Your task to perform on an android device: See recent photos Image 0: 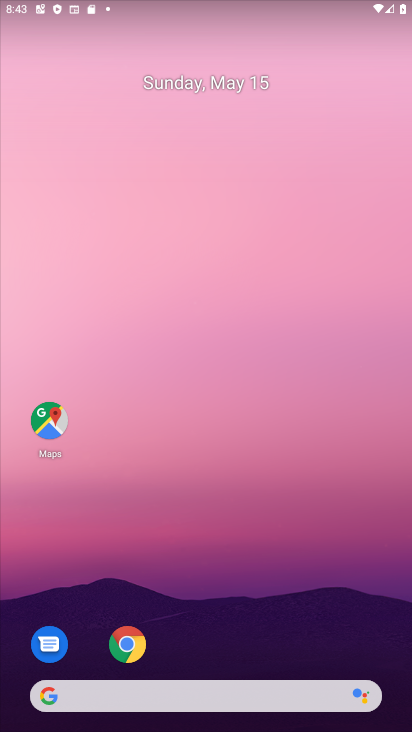
Step 0: drag from (182, 668) to (96, 15)
Your task to perform on an android device: See recent photos Image 1: 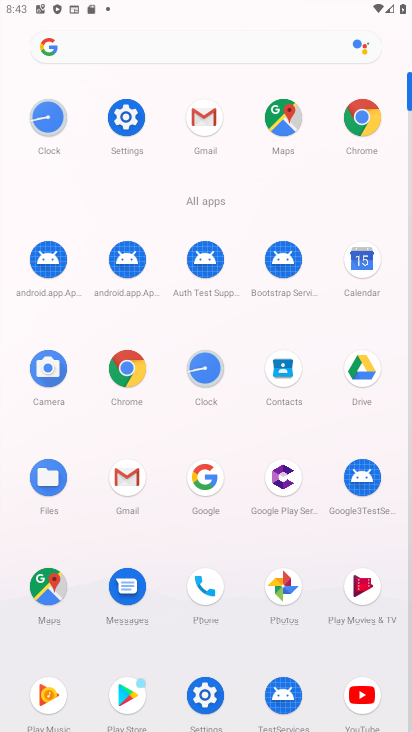
Step 1: click (290, 589)
Your task to perform on an android device: See recent photos Image 2: 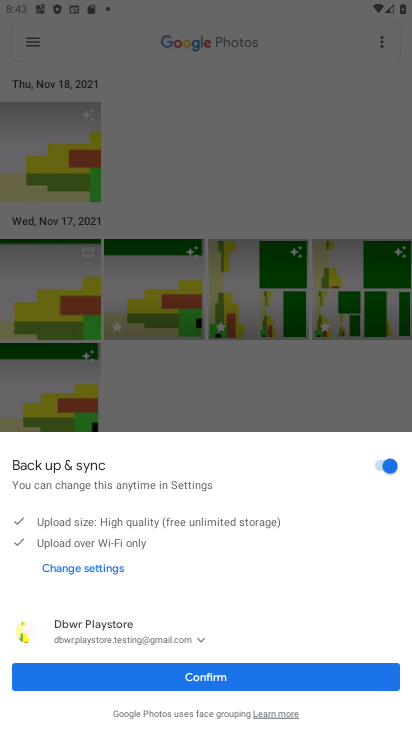
Step 2: click (205, 673)
Your task to perform on an android device: See recent photos Image 3: 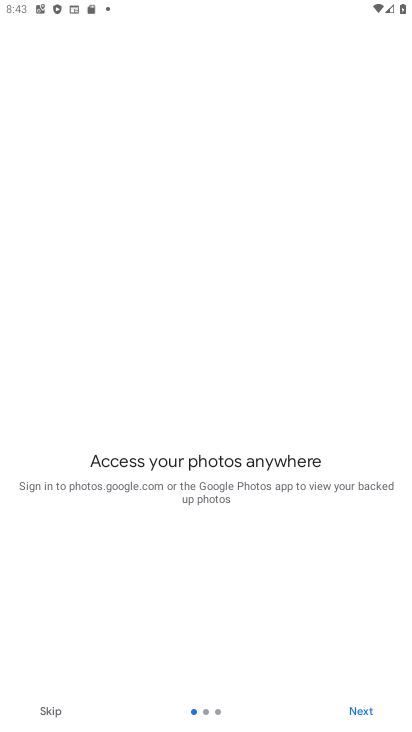
Step 3: click (375, 711)
Your task to perform on an android device: See recent photos Image 4: 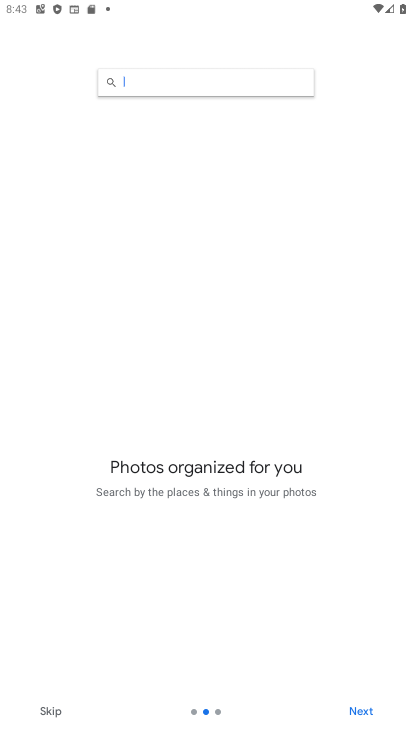
Step 4: click (375, 711)
Your task to perform on an android device: See recent photos Image 5: 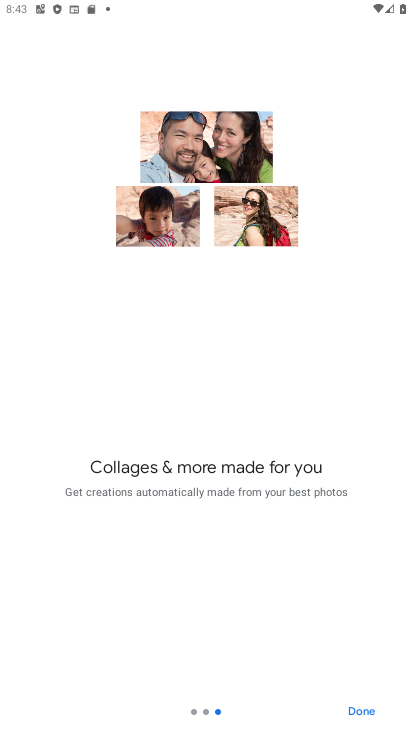
Step 5: click (358, 712)
Your task to perform on an android device: See recent photos Image 6: 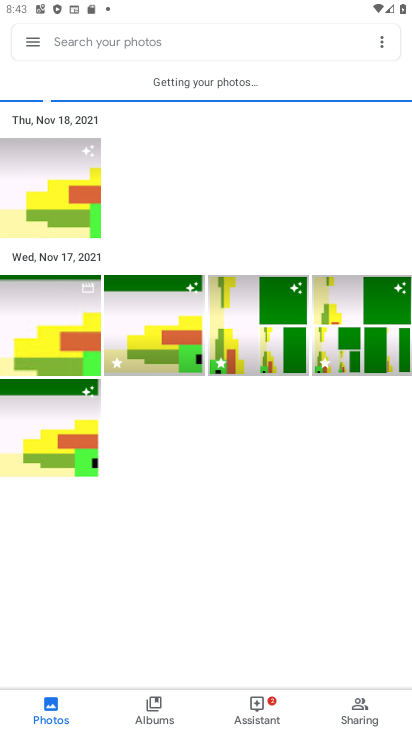
Step 6: task complete